Your task to perform on an android device: check out phone information Image 0: 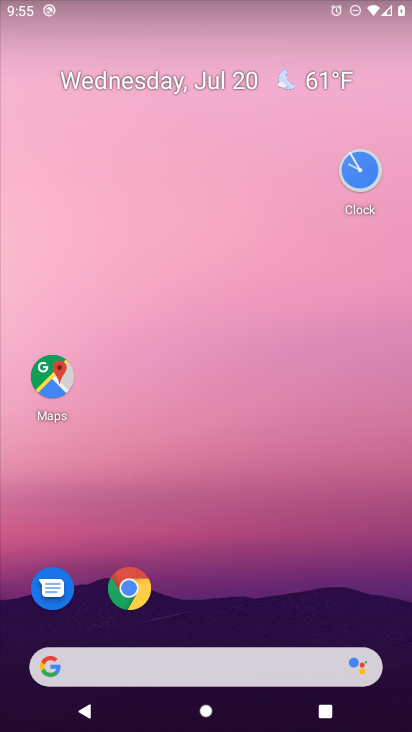
Step 0: drag from (154, 476) to (281, 234)
Your task to perform on an android device: check out phone information Image 1: 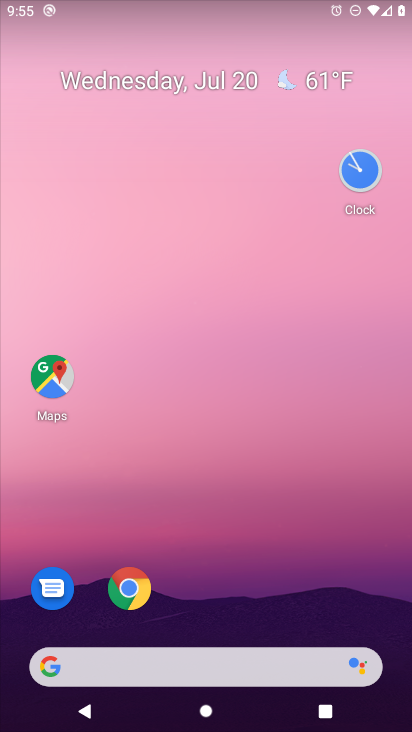
Step 1: drag from (19, 694) to (240, 238)
Your task to perform on an android device: check out phone information Image 2: 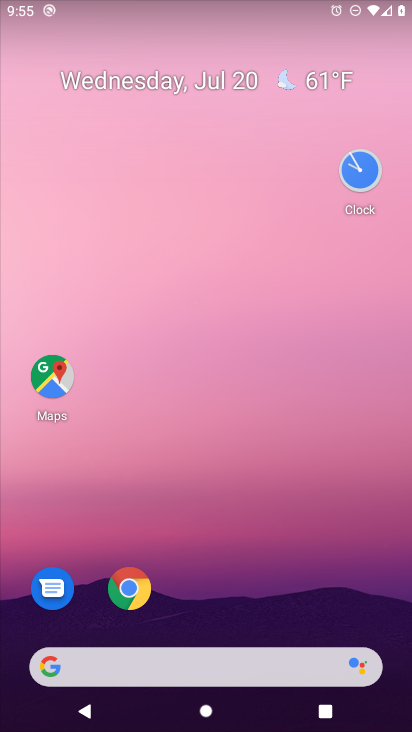
Step 2: drag from (31, 706) to (259, 198)
Your task to perform on an android device: check out phone information Image 3: 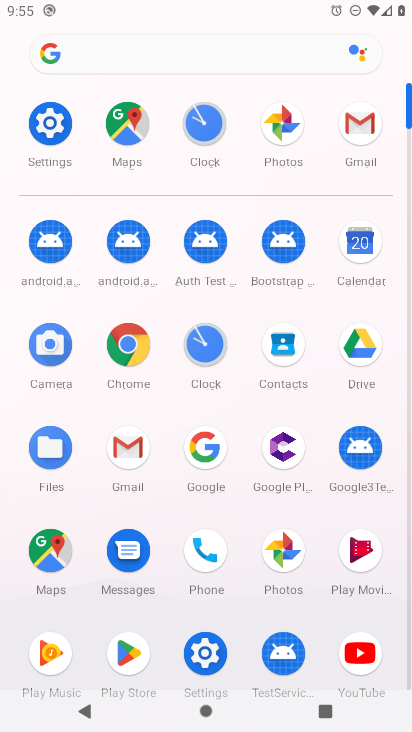
Step 3: click (208, 557)
Your task to perform on an android device: check out phone information Image 4: 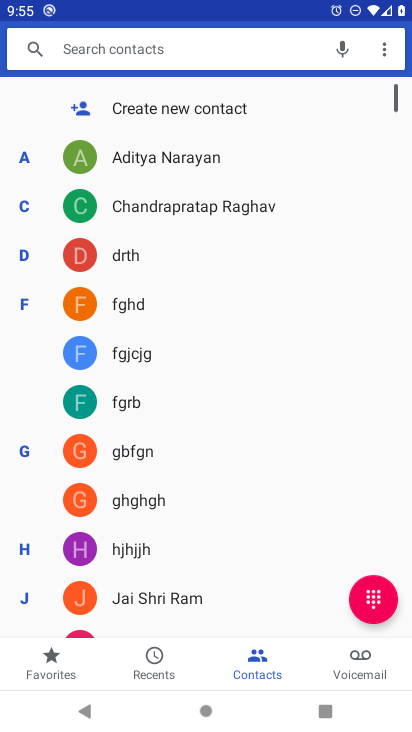
Step 4: task complete